Your task to perform on an android device: toggle show notifications on the lock screen Image 0: 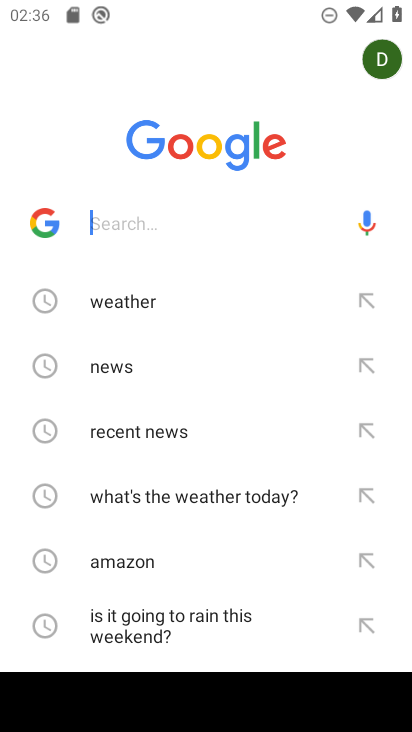
Step 0: press home button
Your task to perform on an android device: toggle show notifications on the lock screen Image 1: 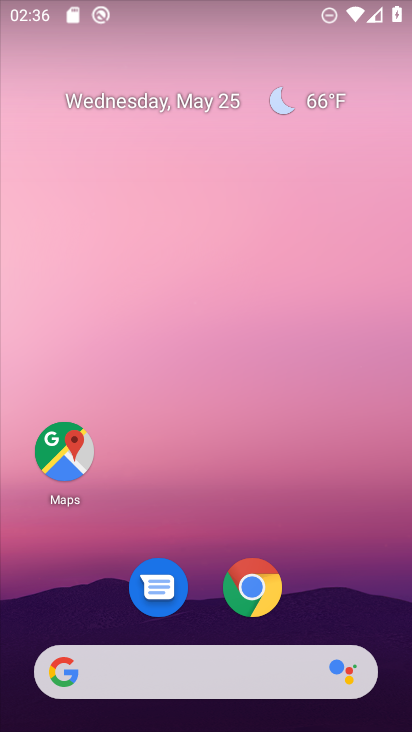
Step 1: drag from (365, 606) to (360, 273)
Your task to perform on an android device: toggle show notifications on the lock screen Image 2: 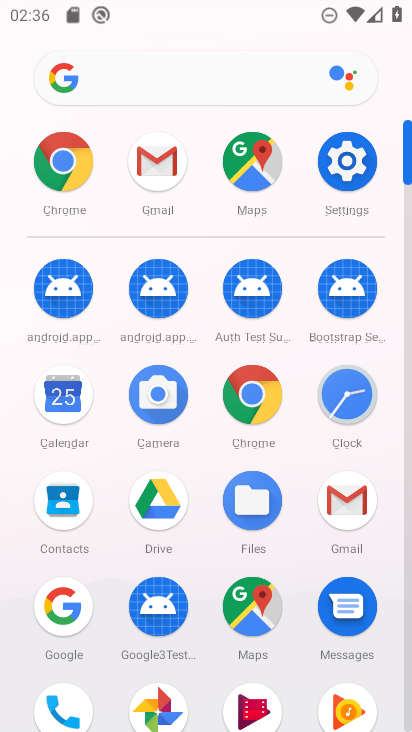
Step 2: click (350, 173)
Your task to perform on an android device: toggle show notifications on the lock screen Image 3: 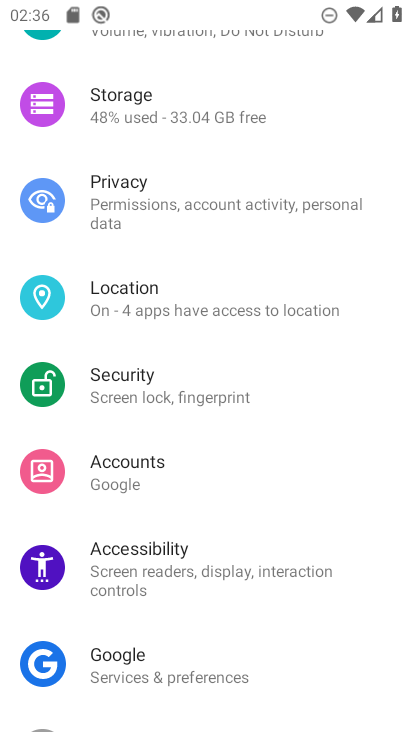
Step 3: drag from (334, 625) to (332, 414)
Your task to perform on an android device: toggle show notifications on the lock screen Image 4: 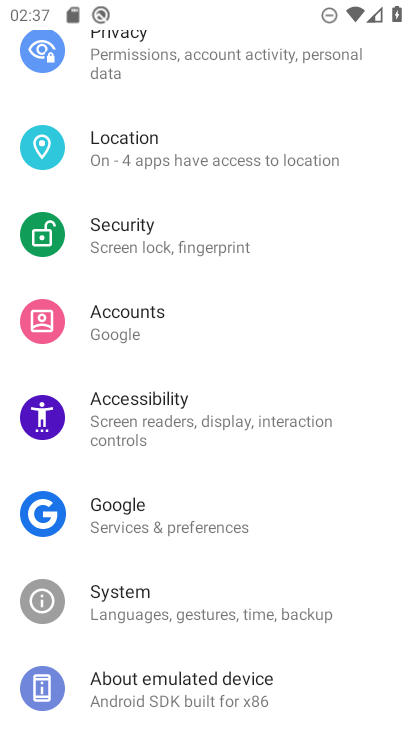
Step 4: drag from (330, 603) to (332, 460)
Your task to perform on an android device: toggle show notifications on the lock screen Image 5: 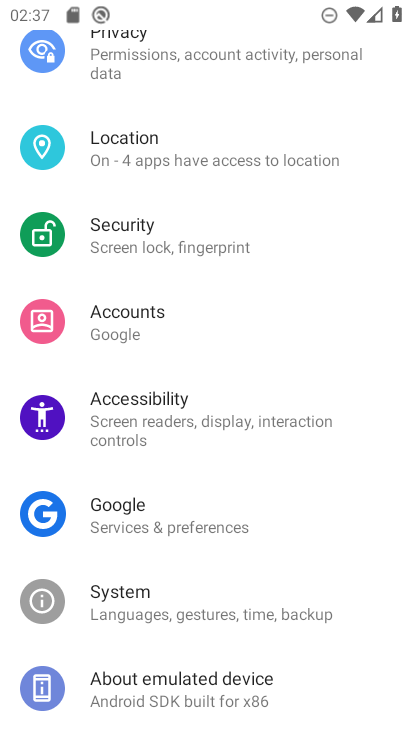
Step 5: drag from (343, 332) to (342, 467)
Your task to perform on an android device: toggle show notifications on the lock screen Image 6: 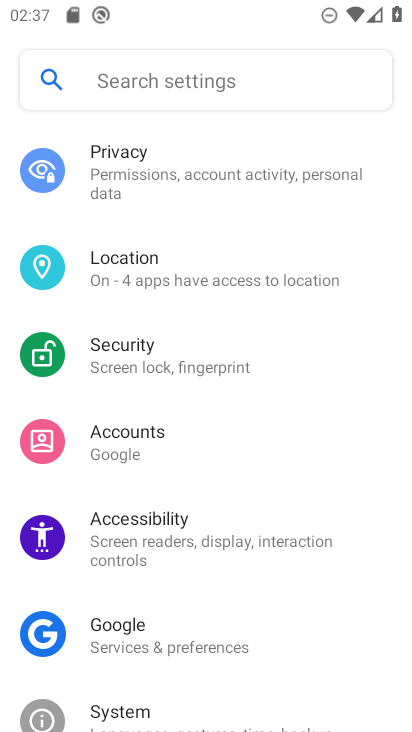
Step 6: drag from (351, 335) to (358, 462)
Your task to perform on an android device: toggle show notifications on the lock screen Image 7: 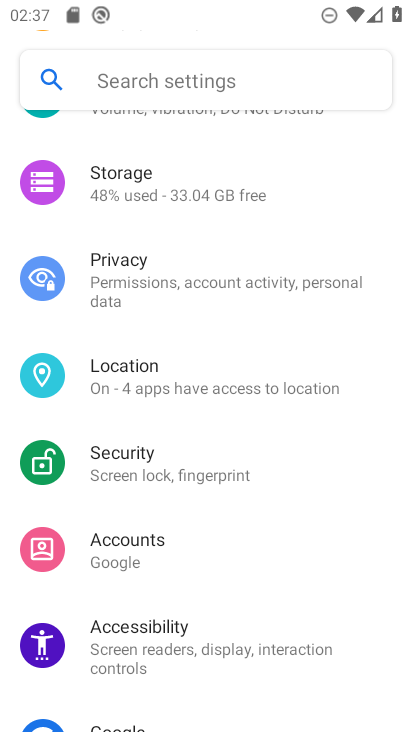
Step 7: drag from (363, 237) to (352, 408)
Your task to perform on an android device: toggle show notifications on the lock screen Image 8: 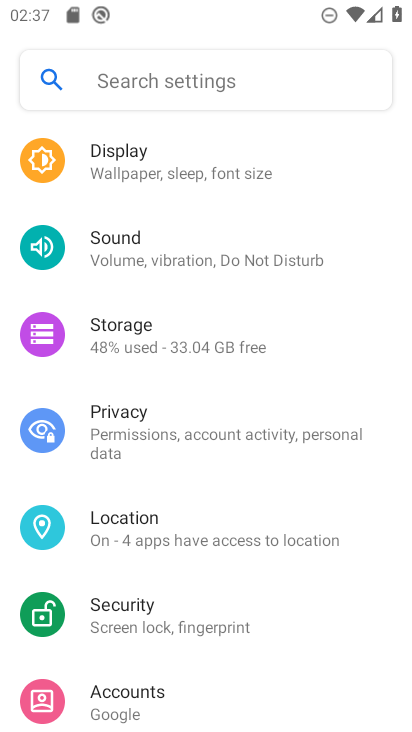
Step 8: drag from (359, 226) to (359, 401)
Your task to perform on an android device: toggle show notifications on the lock screen Image 9: 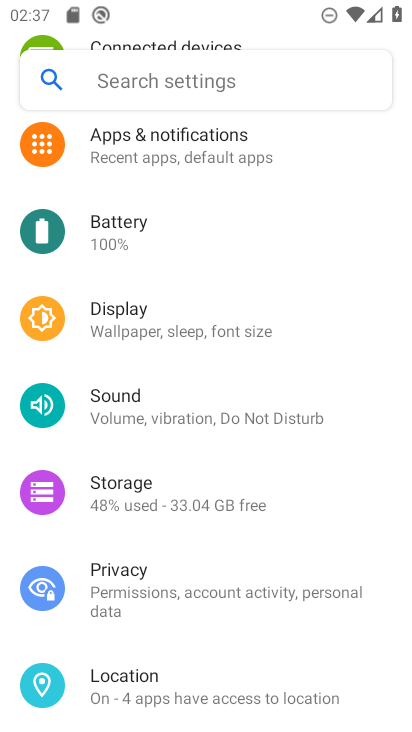
Step 9: drag from (352, 223) to (351, 337)
Your task to perform on an android device: toggle show notifications on the lock screen Image 10: 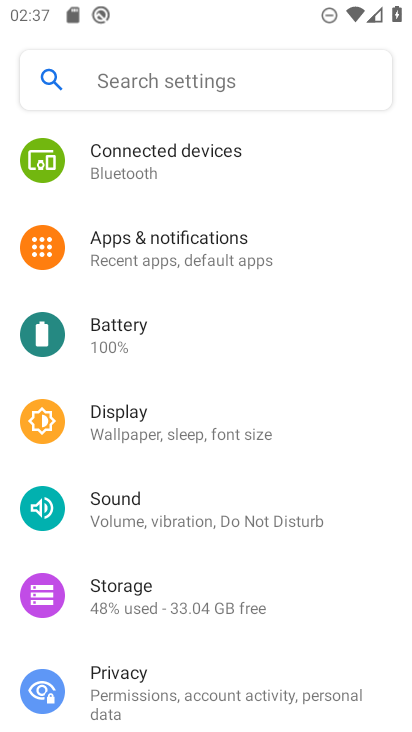
Step 10: click (267, 257)
Your task to perform on an android device: toggle show notifications on the lock screen Image 11: 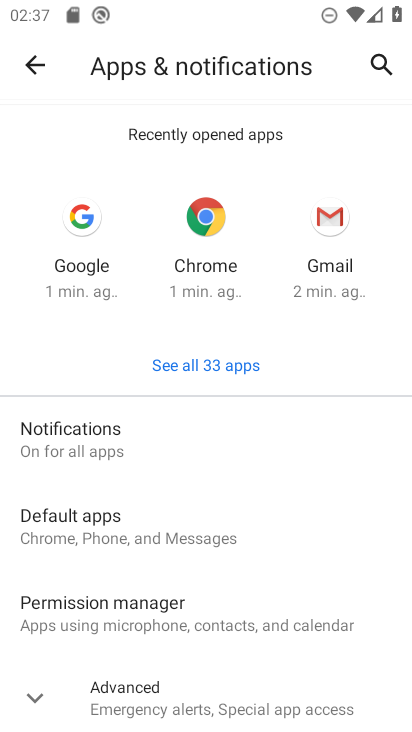
Step 11: click (101, 453)
Your task to perform on an android device: toggle show notifications on the lock screen Image 12: 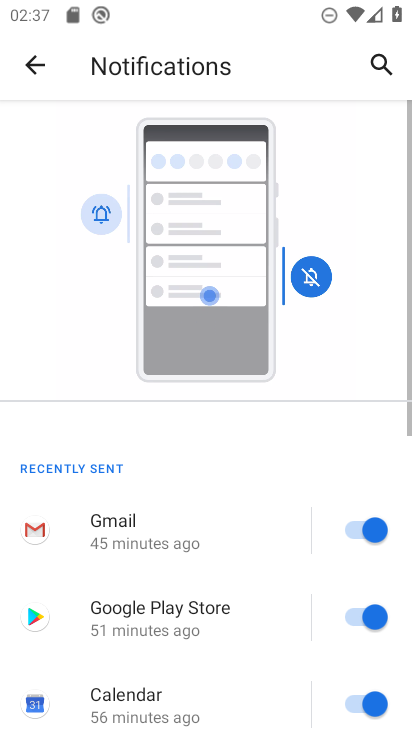
Step 12: drag from (287, 554) to (274, 418)
Your task to perform on an android device: toggle show notifications on the lock screen Image 13: 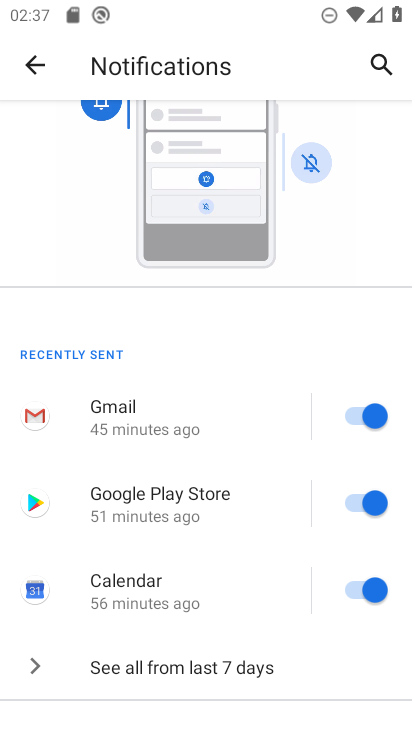
Step 13: drag from (271, 616) to (270, 494)
Your task to perform on an android device: toggle show notifications on the lock screen Image 14: 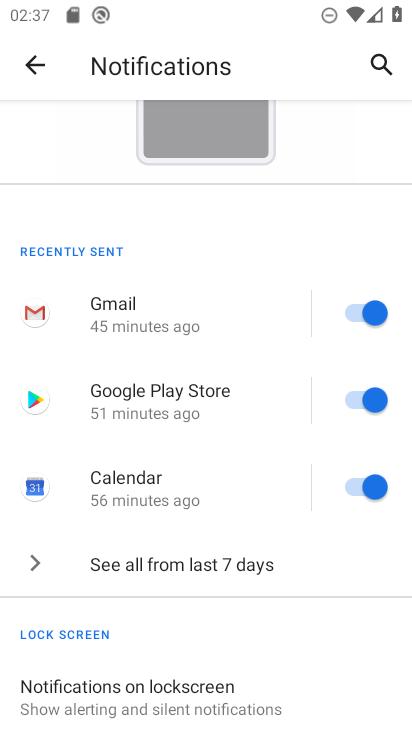
Step 14: drag from (277, 661) to (279, 531)
Your task to perform on an android device: toggle show notifications on the lock screen Image 15: 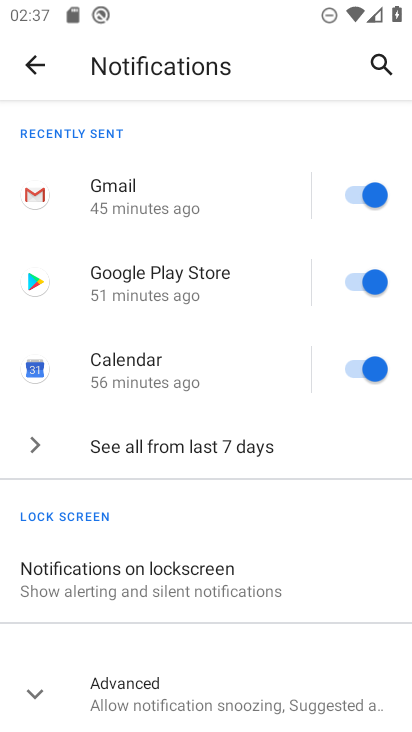
Step 15: click (202, 591)
Your task to perform on an android device: toggle show notifications on the lock screen Image 16: 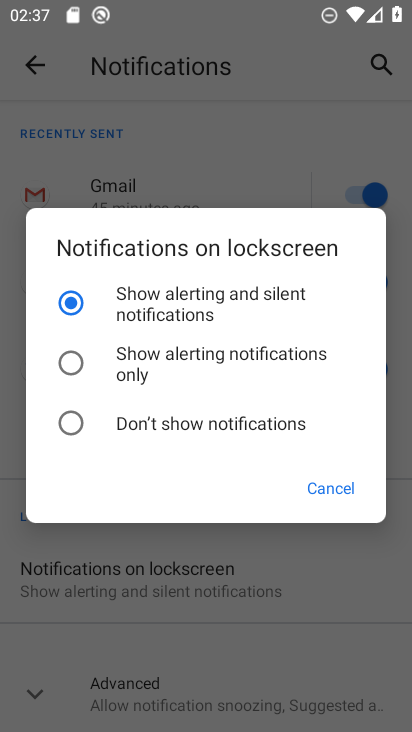
Step 16: task complete